Your task to perform on an android device: change notifications settings Image 0: 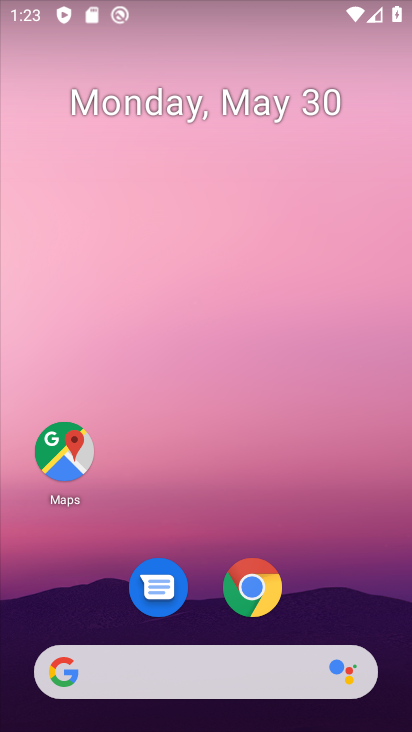
Step 0: drag from (126, 722) to (185, 50)
Your task to perform on an android device: change notifications settings Image 1: 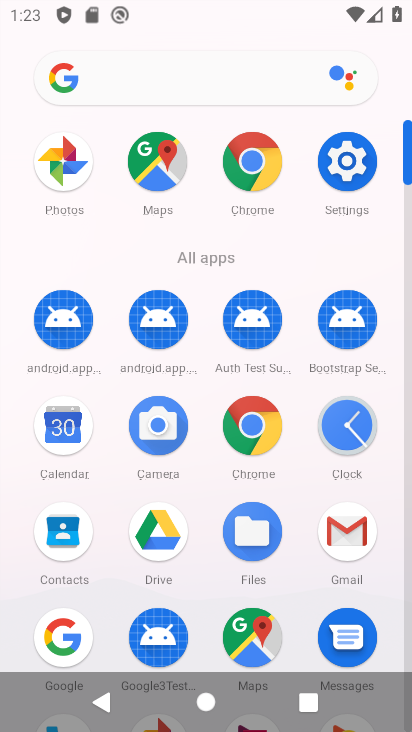
Step 1: click (339, 159)
Your task to perform on an android device: change notifications settings Image 2: 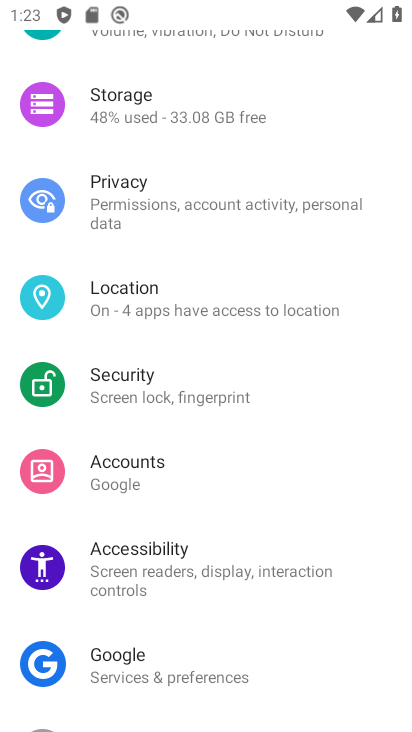
Step 2: drag from (319, 153) to (234, 649)
Your task to perform on an android device: change notifications settings Image 3: 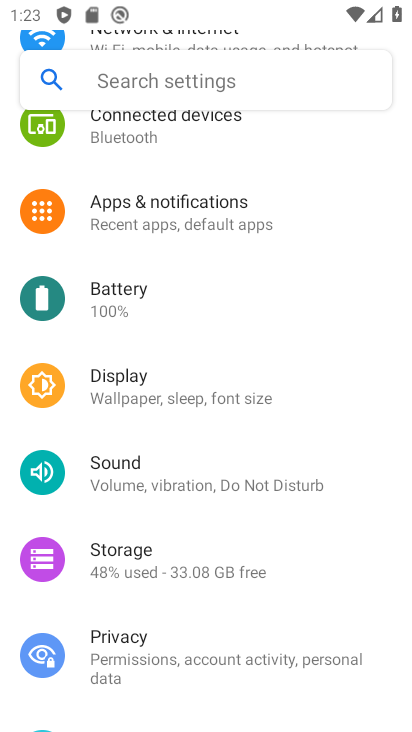
Step 3: click (218, 215)
Your task to perform on an android device: change notifications settings Image 4: 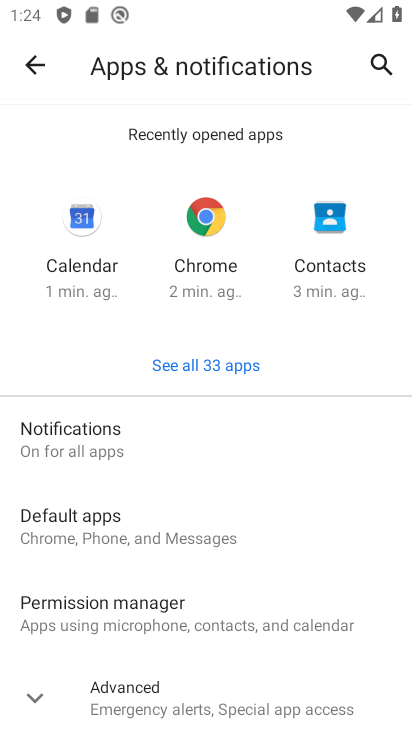
Step 4: click (87, 468)
Your task to perform on an android device: change notifications settings Image 5: 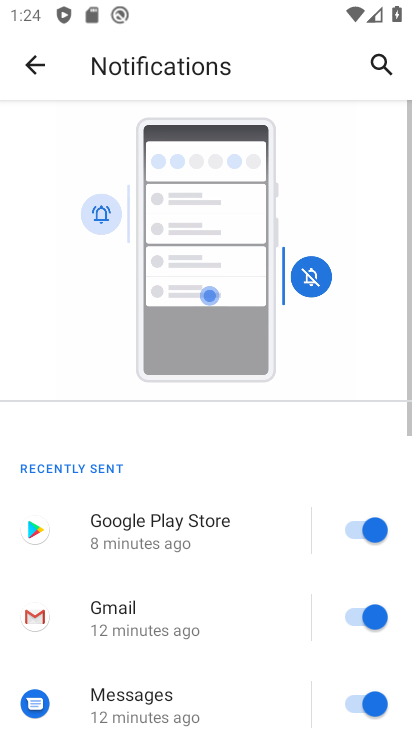
Step 5: click (375, 622)
Your task to perform on an android device: change notifications settings Image 6: 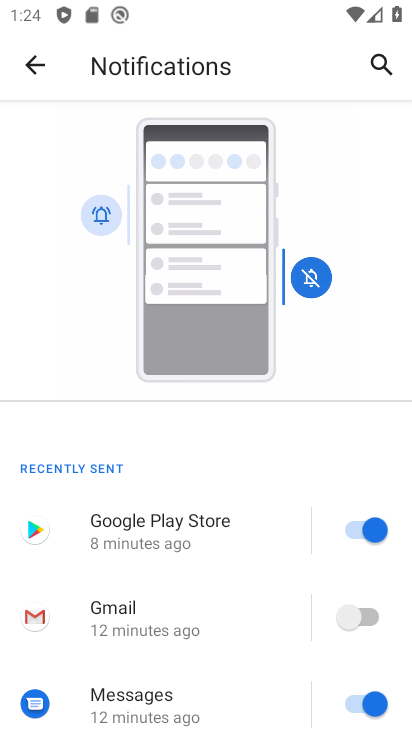
Step 6: task complete